Your task to perform on an android device: Clear all items from cart on walmart. Add "razer thresher" to the cart on walmart, then select checkout. Image 0: 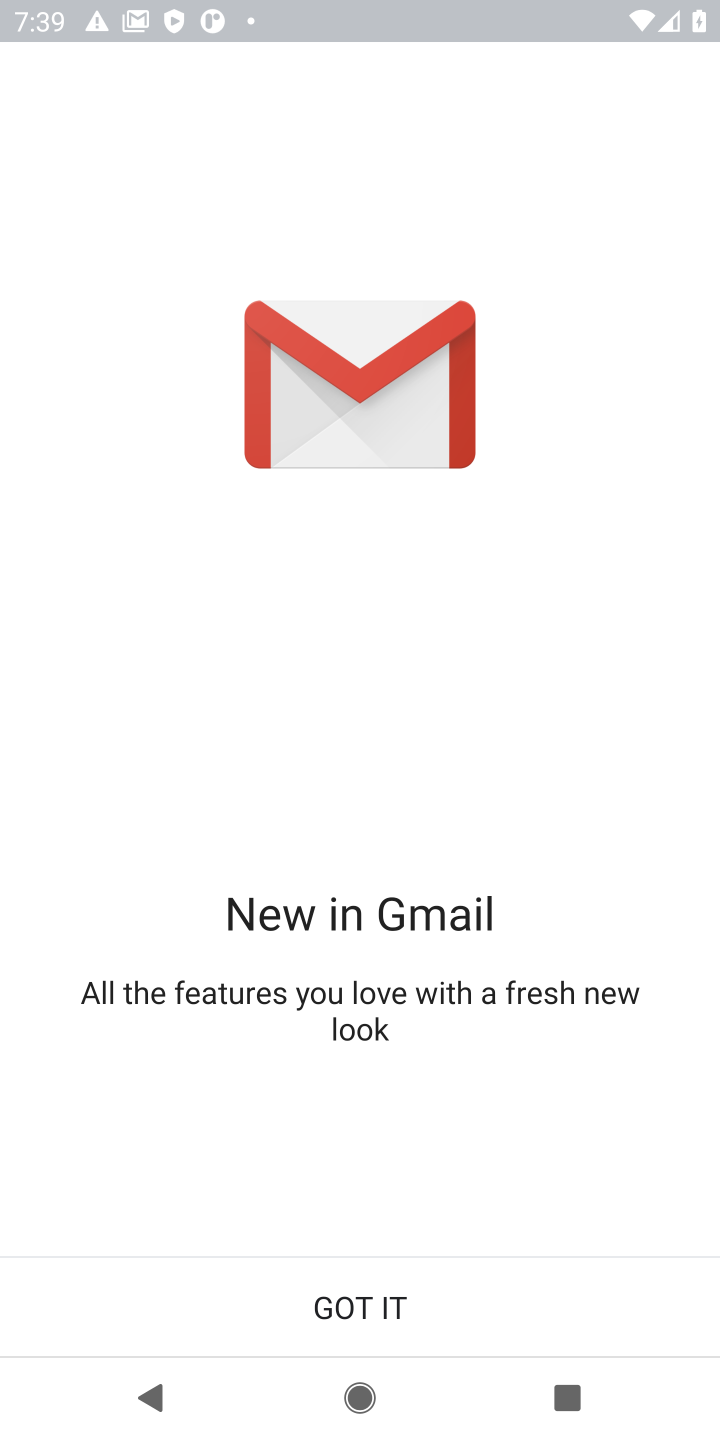
Step 0: press home button
Your task to perform on an android device: Clear all items from cart on walmart. Add "razer thresher" to the cart on walmart, then select checkout. Image 1: 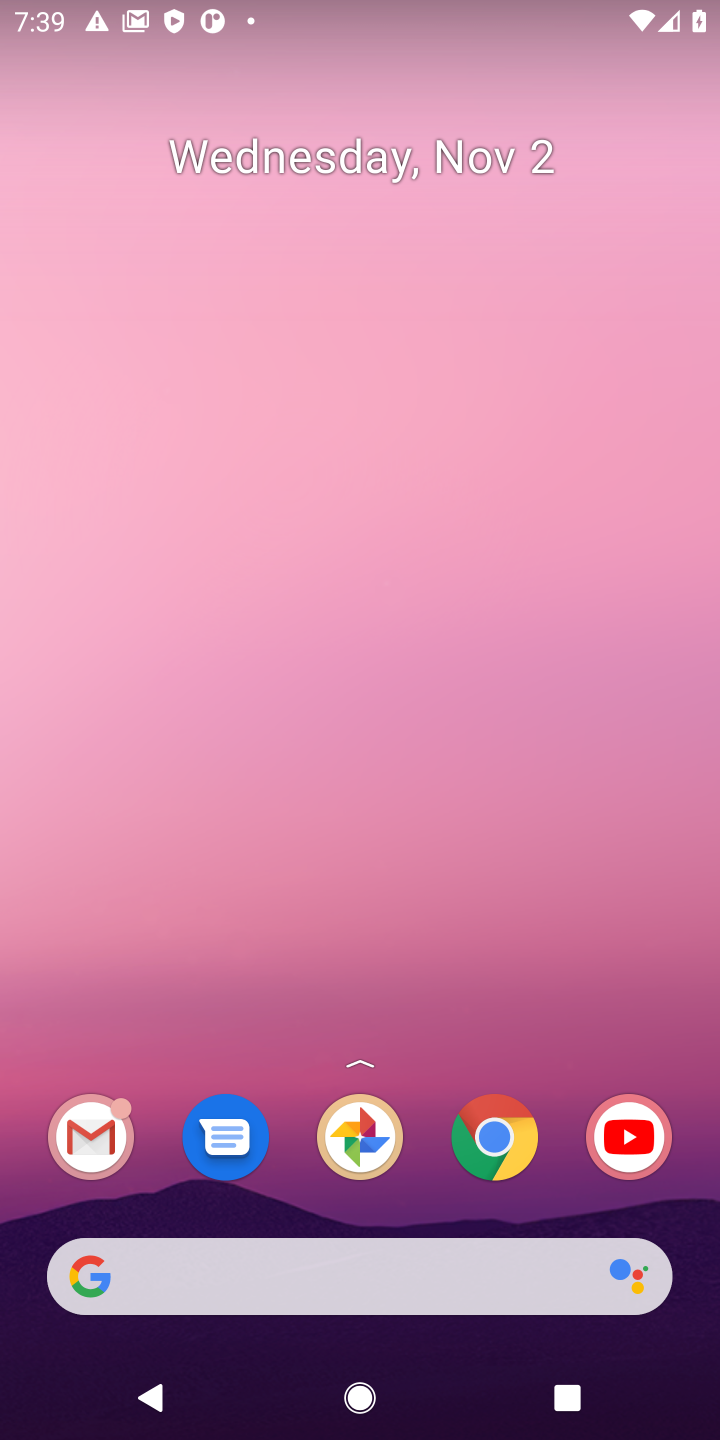
Step 1: click (496, 1140)
Your task to perform on an android device: Clear all items from cart on walmart. Add "razer thresher" to the cart on walmart, then select checkout. Image 2: 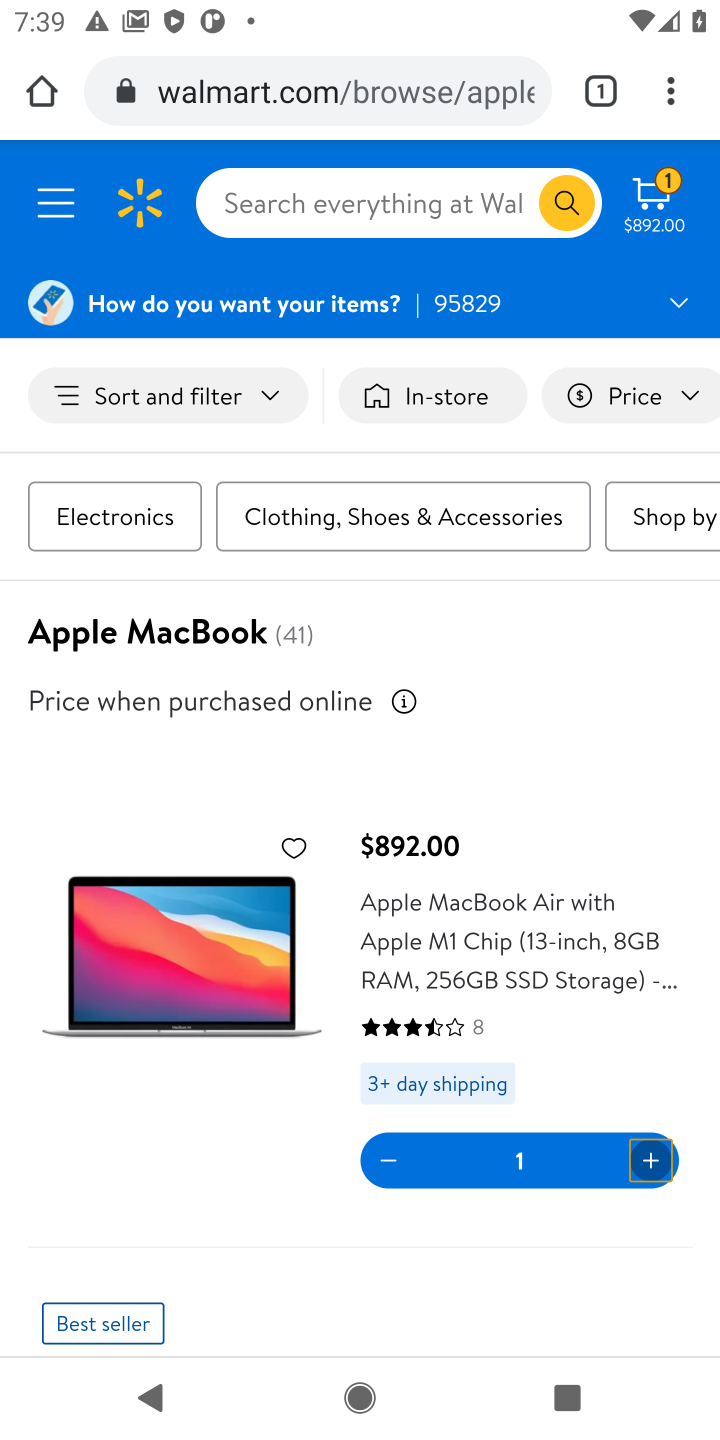
Step 2: click (323, 189)
Your task to perform on an android device: Clear all items from cart on walmart. Add "razer thresher" to the cart on walmart, then select checkout. Image 3: 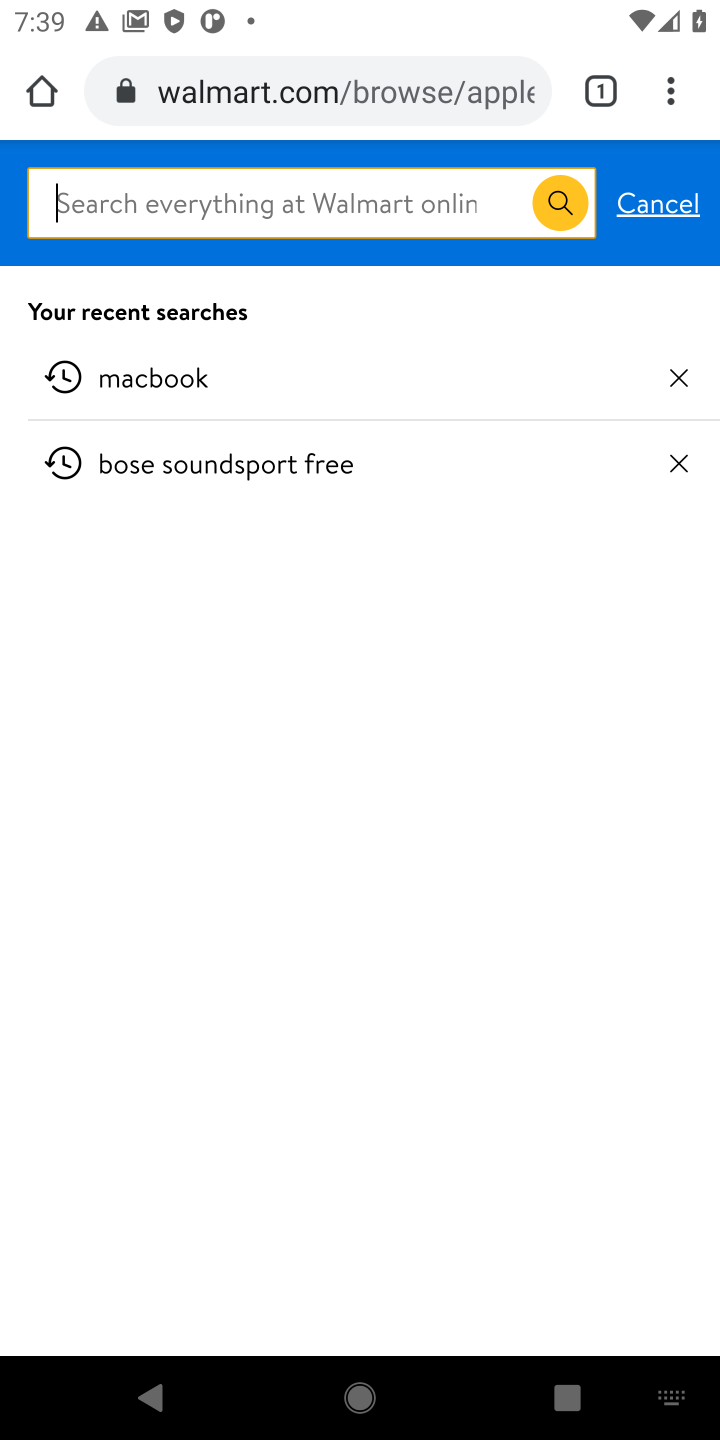
Step 3: click (656, 201)
Your task to perform on an android device: Clear all items from cart on walmart. Add "razer thresher" to the cart on walmart, then select checkout. Image 4: 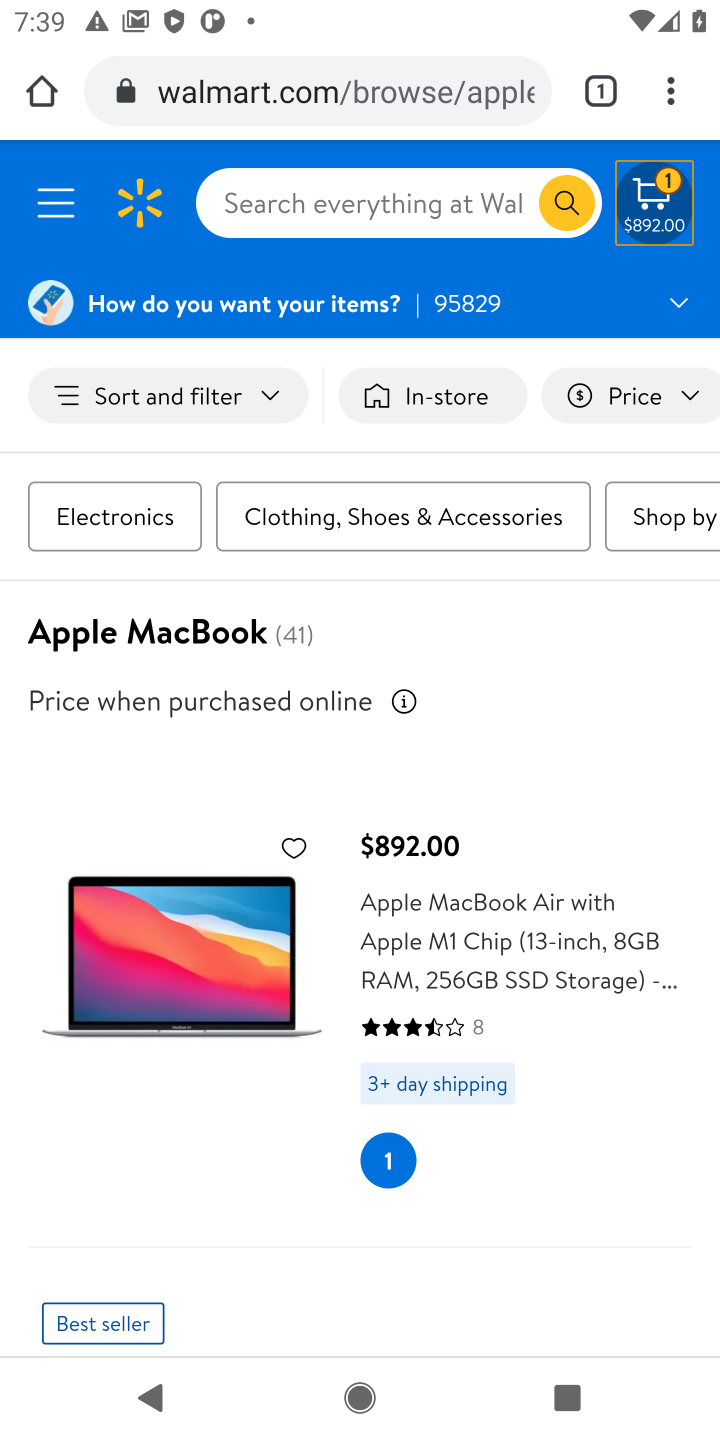
Step 4: click (657, 202)
Your task to perform on an android device: Clear all items from cart on walmart. Add "razer thresher" to the cart on walmart, then select checkout. Image 5: 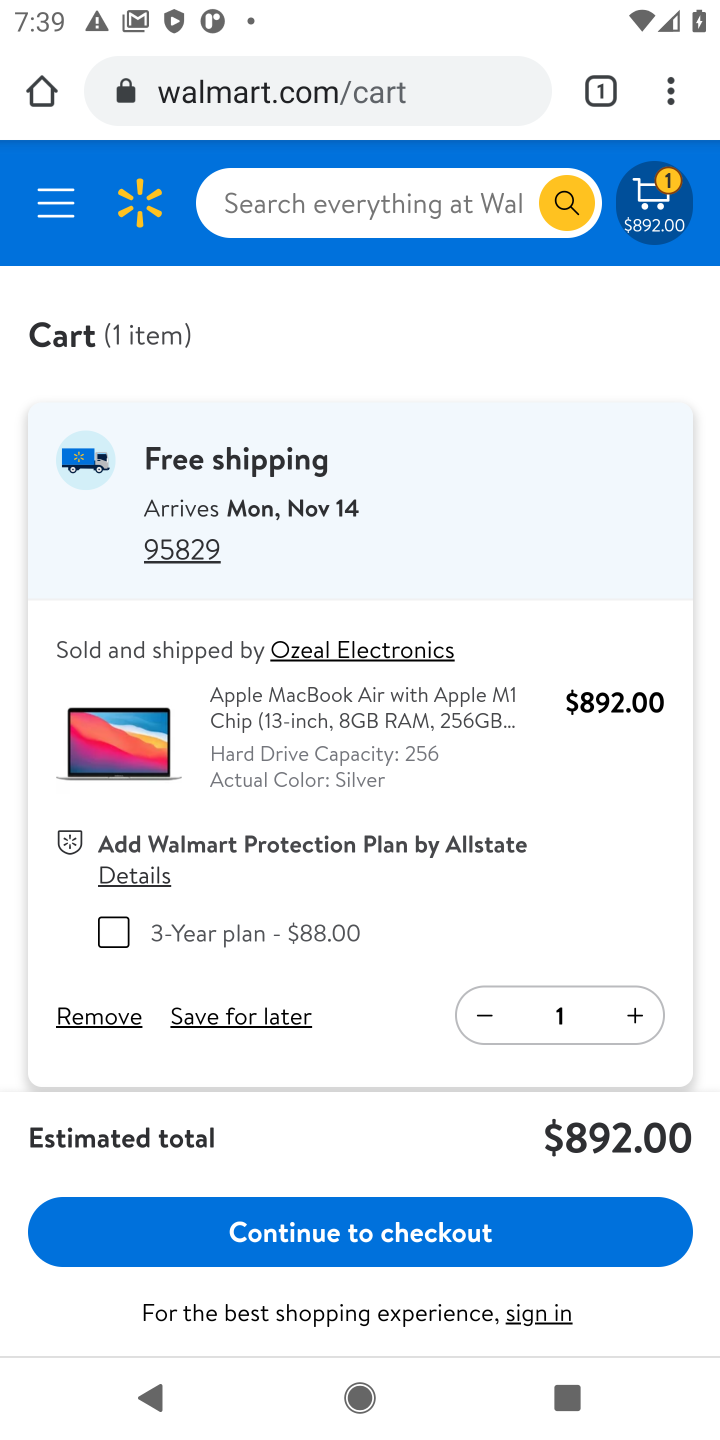
Step 5: click (77, 1018)
Your task to perform on an android device: Clear all items from cart on walmart. Add "razer thresher" to the cart on walmart, then select checkout. Image 6: 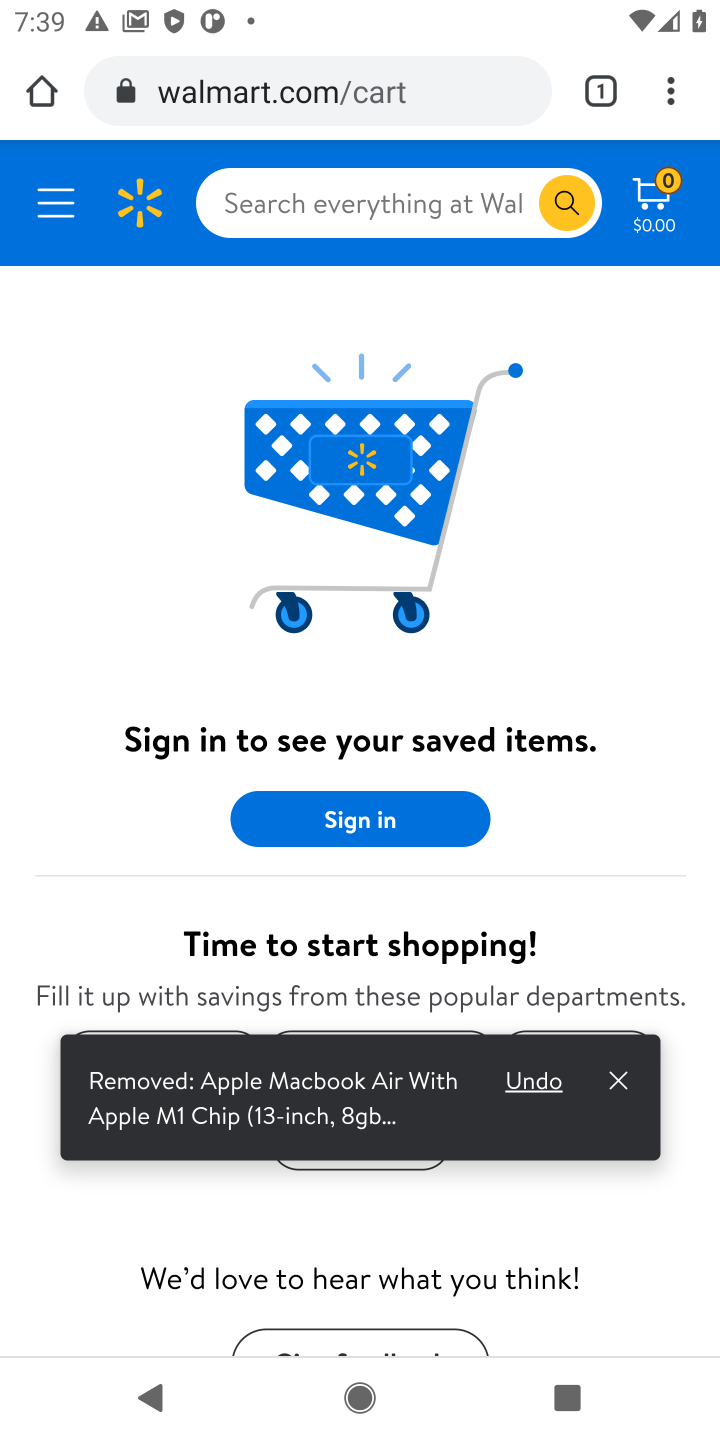
Step 6: click (287, 183)
Your task to perform on an android device: Clear all items from cart on walmart. Add "razer thresher" to the cart on walmart, then select checkout. Image 7: 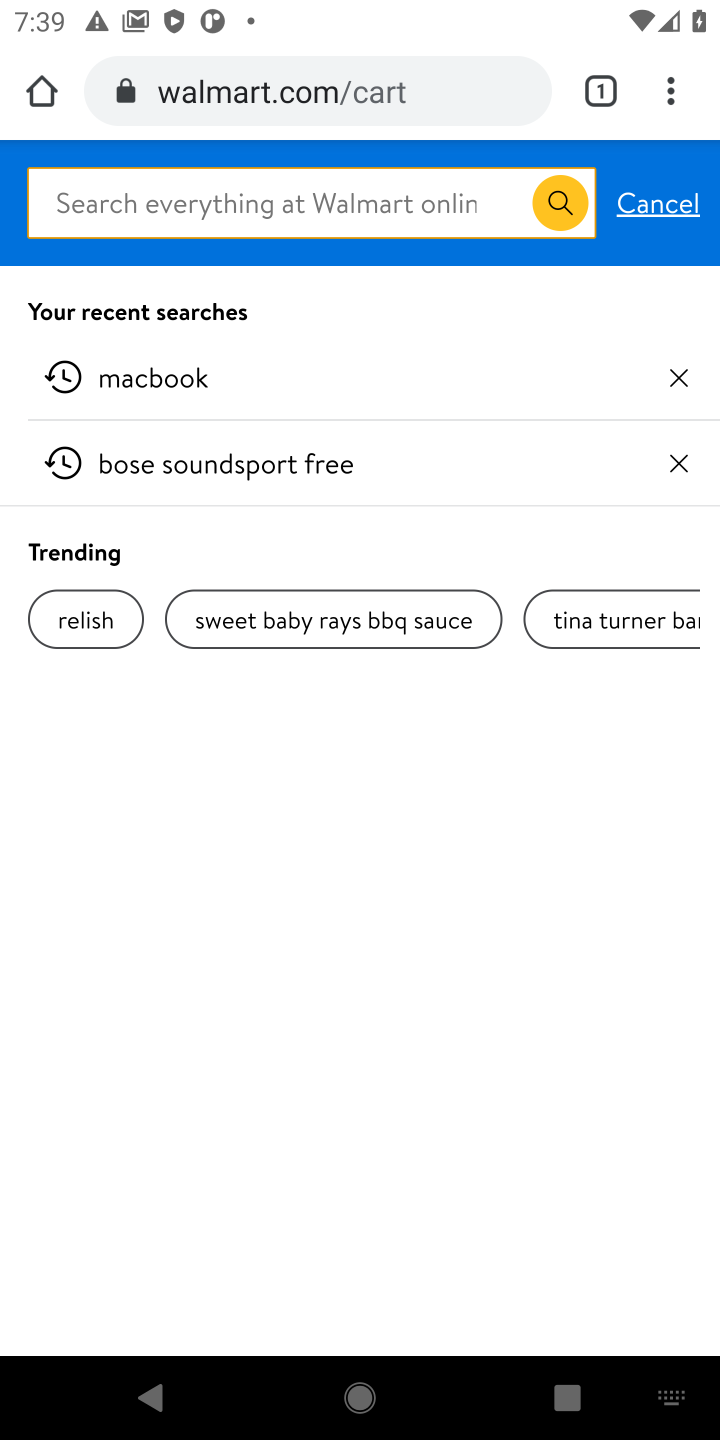
Step 7: type "razer thresher"
Your task to perform on an android device: Clear all items from cart on walmart. Add "razer thresher" to the cart on walmart, then select checkout. Image 8: 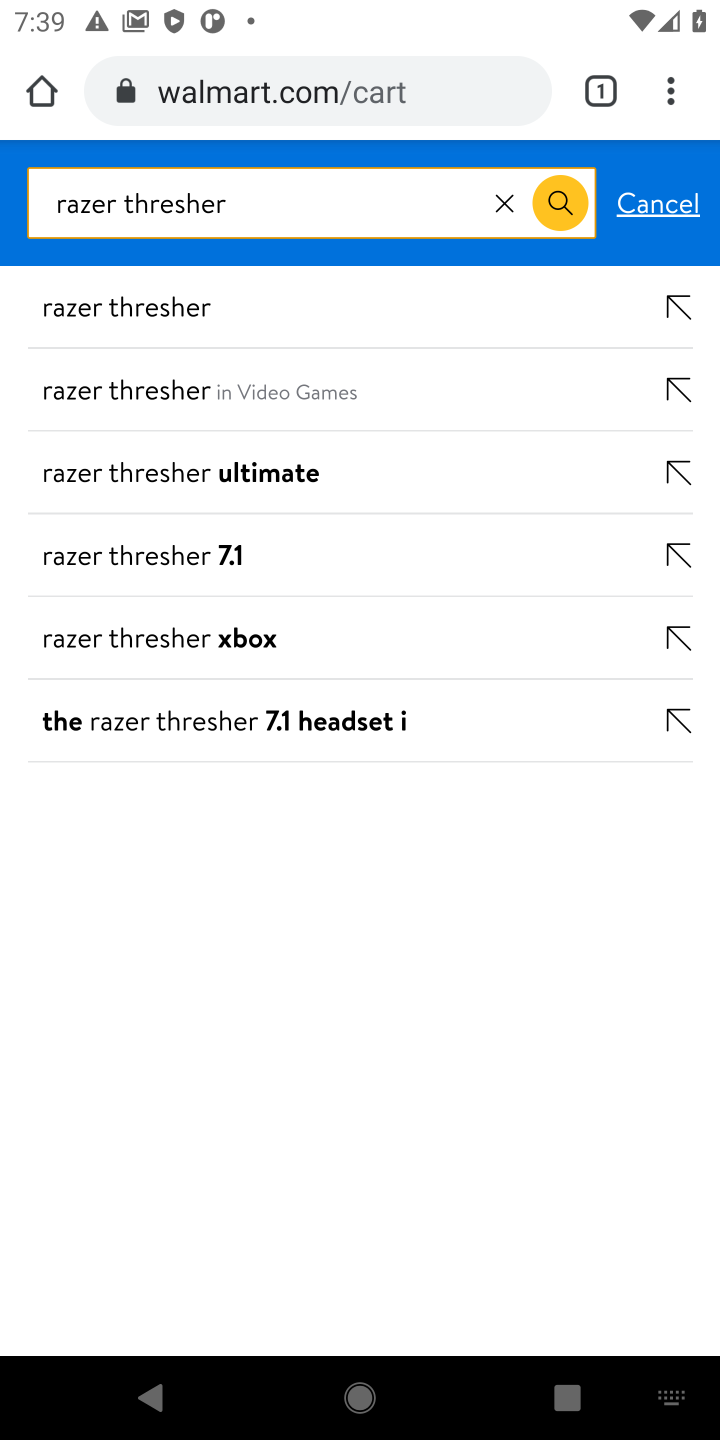
Step 8: click (143, 301)
Your task to perform on an android device: Clear all items from cart on walmart. Add "razer thresher" to the cart on walmart, then select checkout. Image 9: 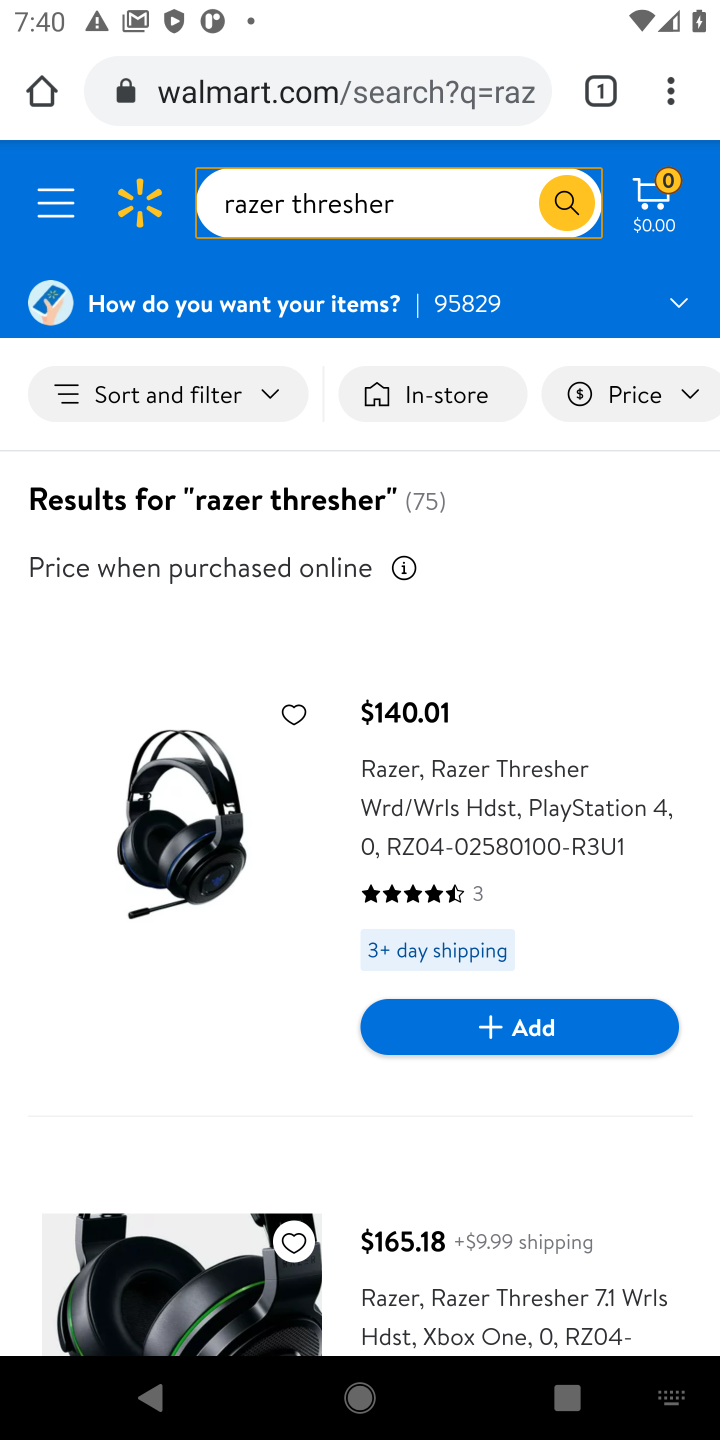
Step 9: click (493, 1031)
Your task to perform on an android device: Clear all items from cart on walmart. Add "razer thresher" to the cart on walmart, then select checkout. Image 10: 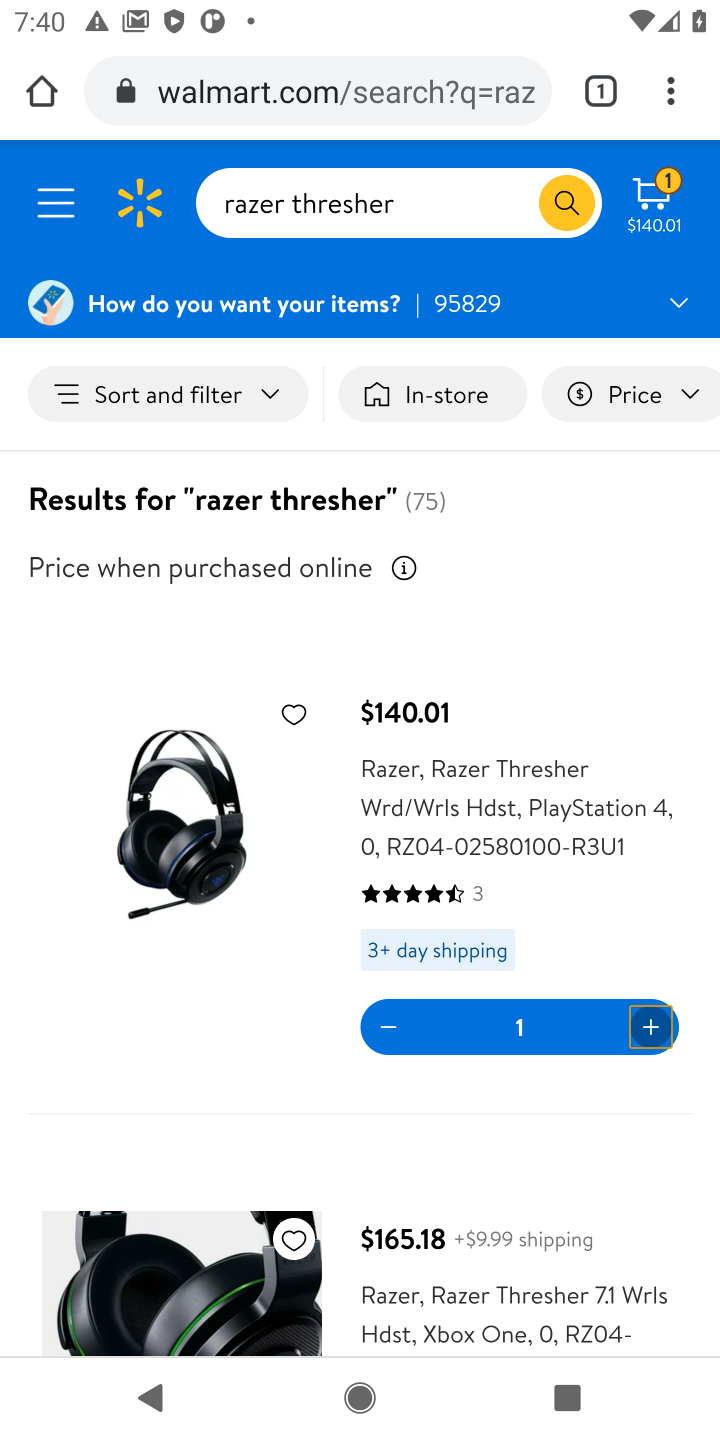
Step 10: task complete